Your task to perform on an android device: change timer sound Image 0: 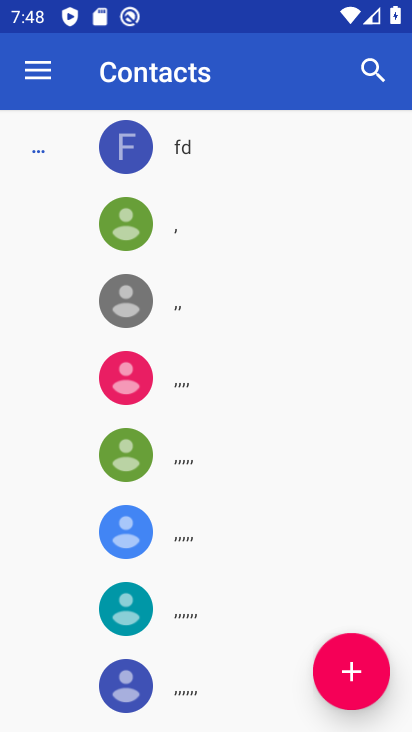
Step 0: press home button
Your task to perform on an android device: change timer sound Image 1: 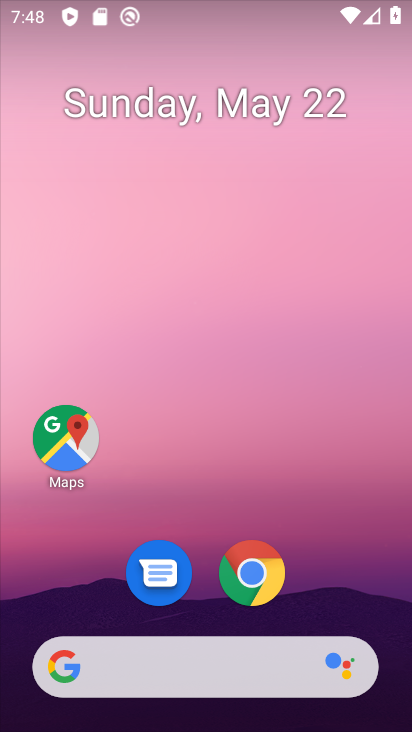
Step 1: drag from (329, 555) to (313, 116)
Your task to perform on an android device: change timer sound Image 2: 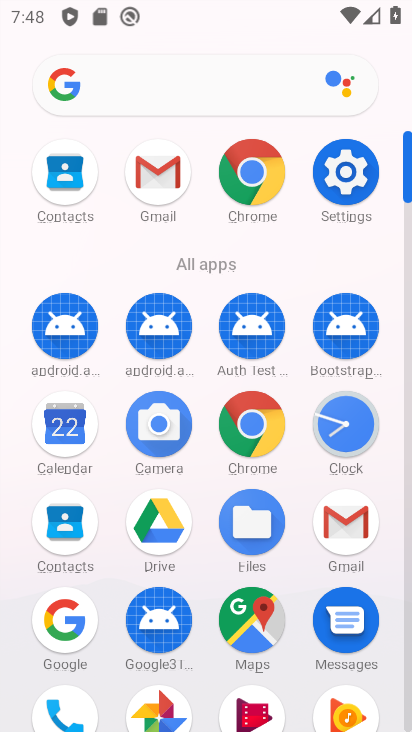
Step 2: click (340, 443)
Your task to perform on an android device: change timer sound Image 3: 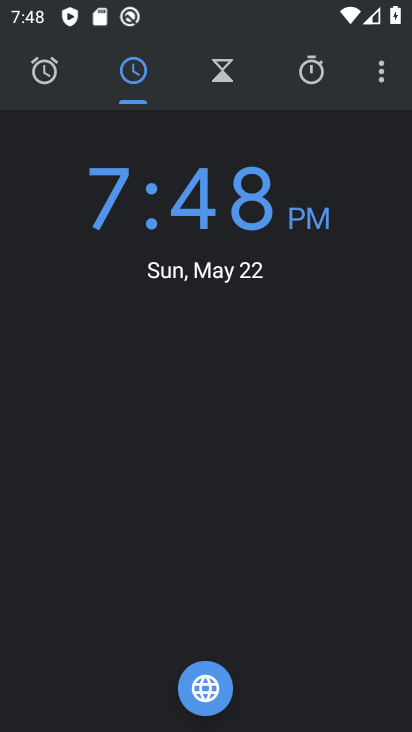
Step 3: click (378, 75)
Your task to perform on an android device: change timer sound Image 4: 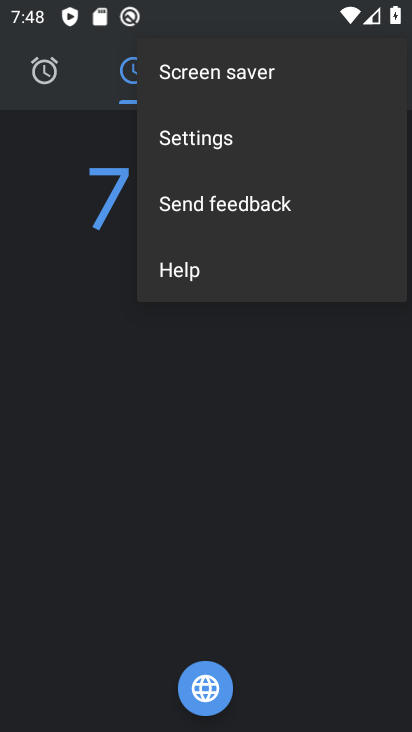
Step 4: click (255, 139)
Your task to perform on an android device: change timer sound Image 5: 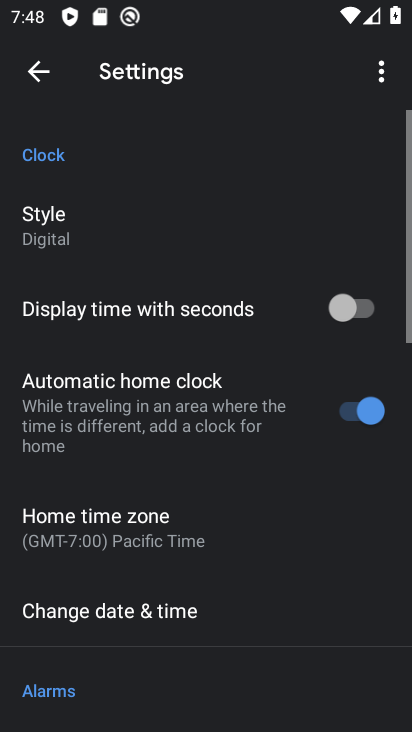
Step 5: drag from (206, 568) to (194, 183)
Your task to perform on an android device: change timer sound Image 6: 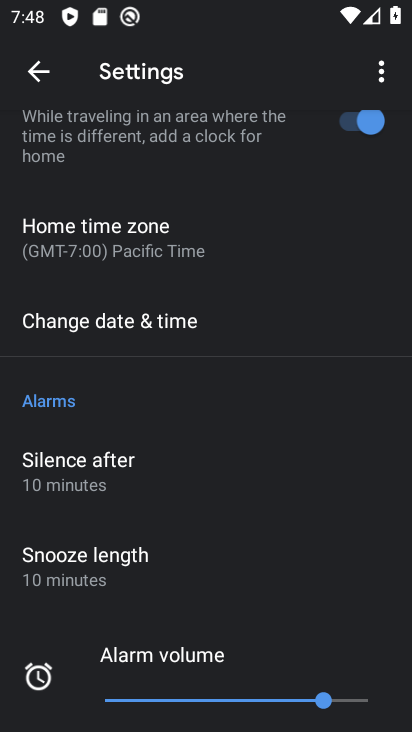
Step 6: drag from (160, 517) to (222, 146)
Your task to perform on an android device: change timer sound Image 7: 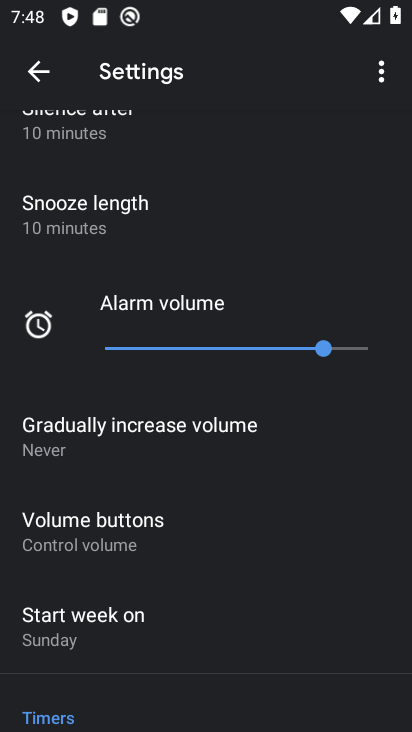
Step 7: drag from (192, 560) to (213, 227)
Your task to perform on an android device: change timer sound Image 8: 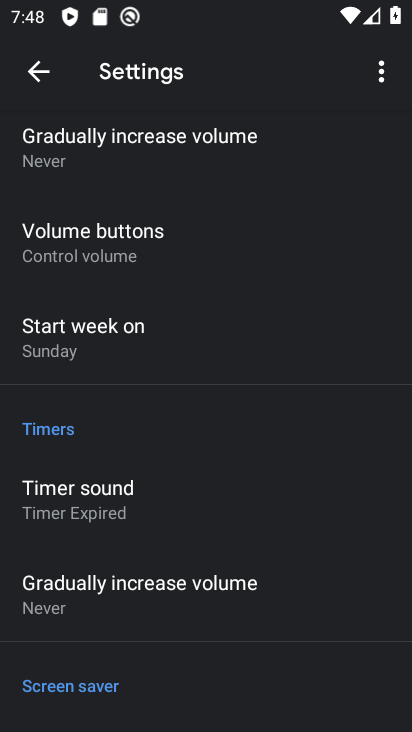
Step 8: click (146, 488)
Your task to perform on an android device: change timer sound Image 9: 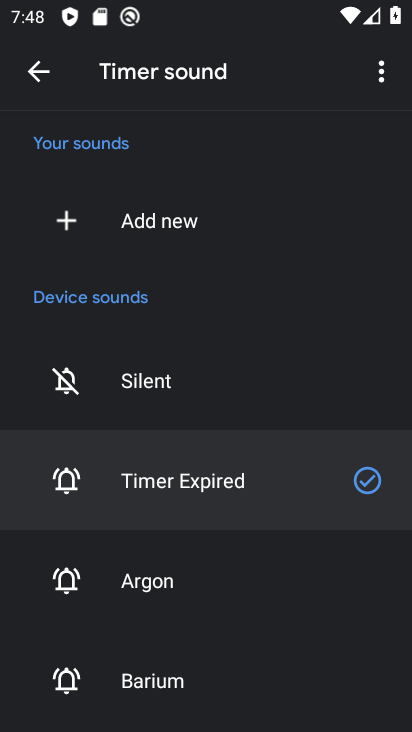
Step 9: click (184, 595)
Your task to perform on an android device: change timer sound Image 10: 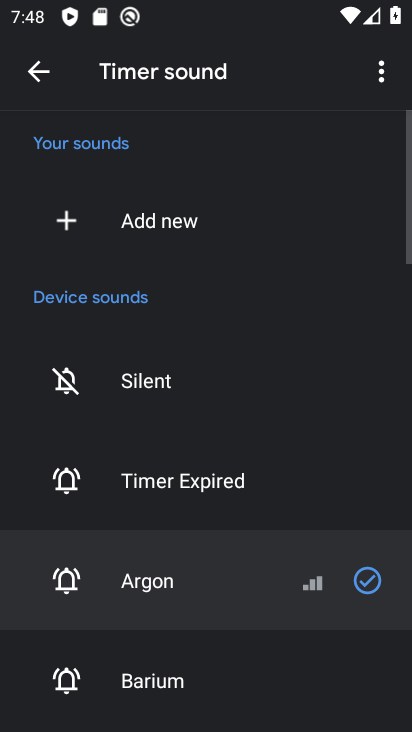
Step 10: task complete